Your task to perform on an android device: remove spam from my inbox in the gmail app Image 0: 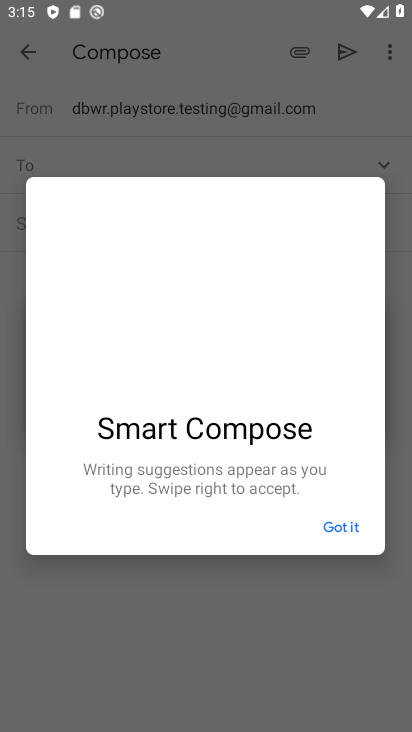
Step 0: press home button
Your task to perform on an android device: remove spam from my inbox in the gmail app Image 1: 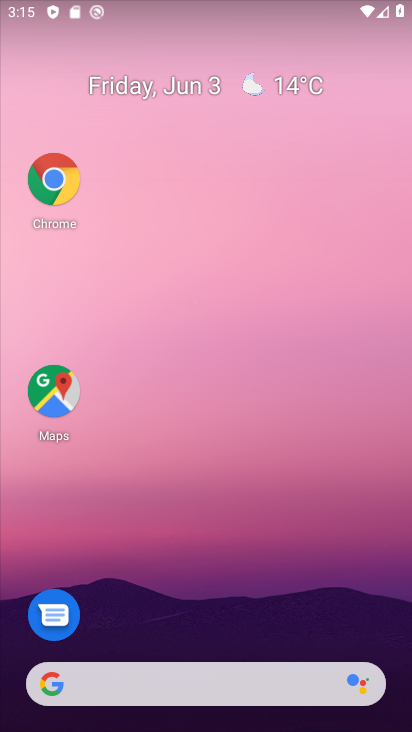
Step 1: drag from (138, 728) to (197, 114)
Your task to perform on an android device: remove spam from my inbox in the gmail app Image 2: 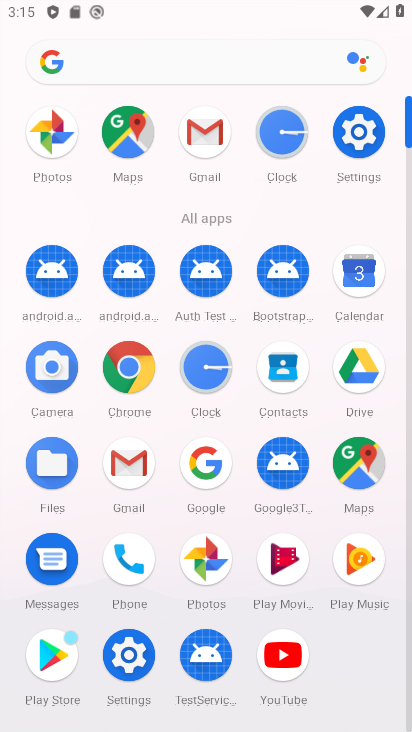
Step 2: click (124, 473)
Your task to perform on an android device: remove spam from my inbox in the gmail app Image 3: 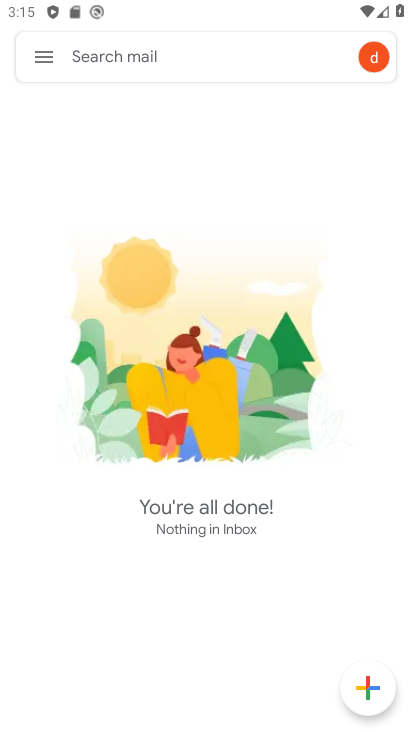
Step 3: click (44, 61)
Your task to perform on an android device: remove spam from my inbox in the gmail app Image 4: 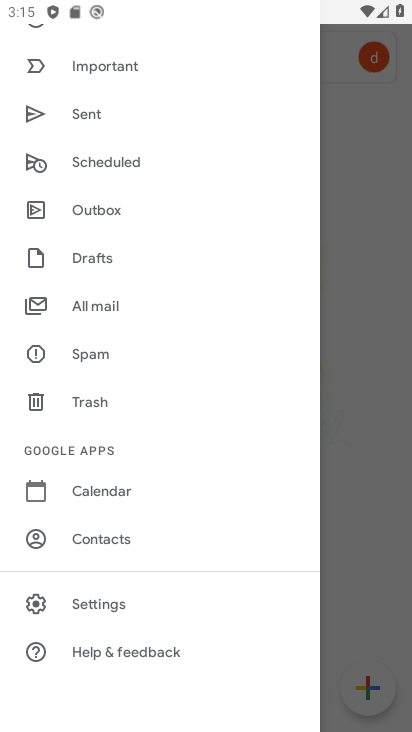
Step 4: click (96, 360)
Your task to perform on an android device: remove spam from my inbox in the gmail app Image 5: 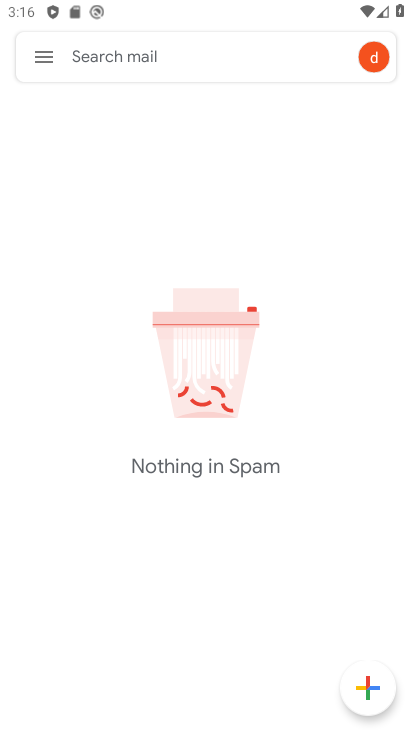
Step 5: task complete